Your task to perform on an android device: Open Reddit.com Image 0: 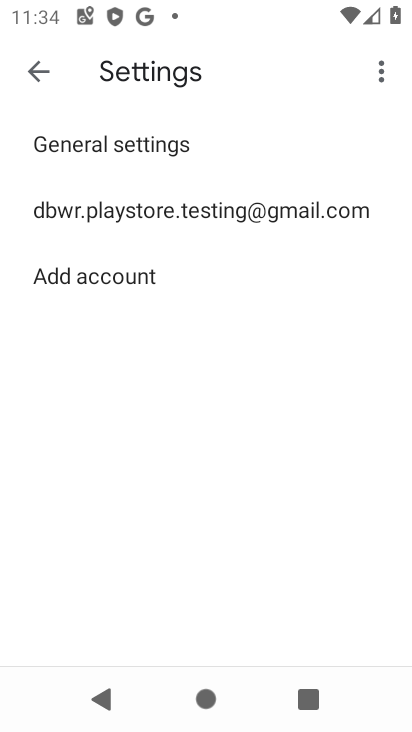
Step 0: press home button
Your task to perform on an android device: Open Reddit.com Image 1: 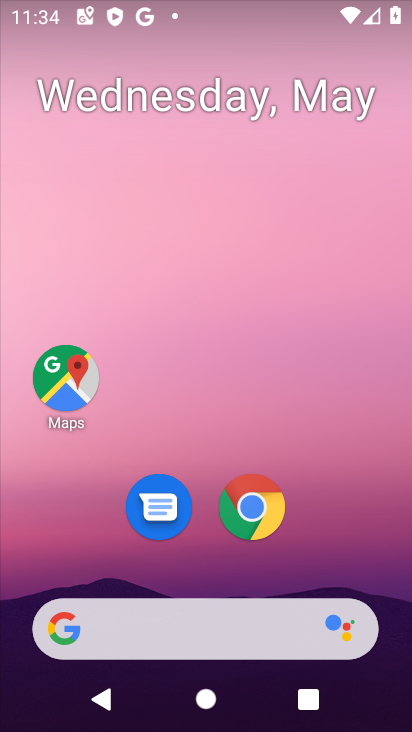
Step 1: click (260, 500)
Your task to perform on an android device: Open Reddit.com Image 2: 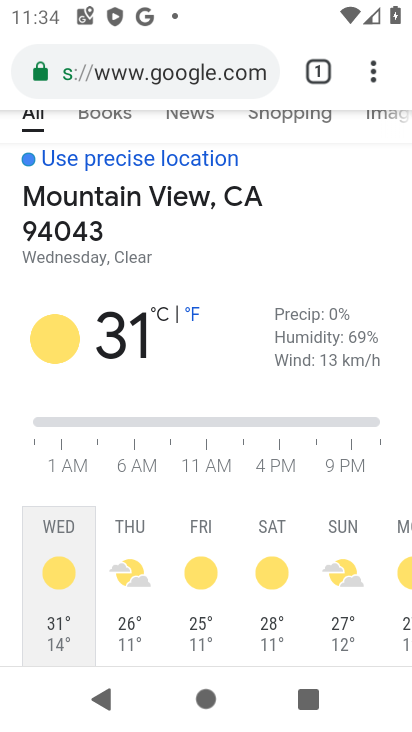
Step 2: click (215, 47)
Your task to perform on an android device: Open Reddit.com Image 3: 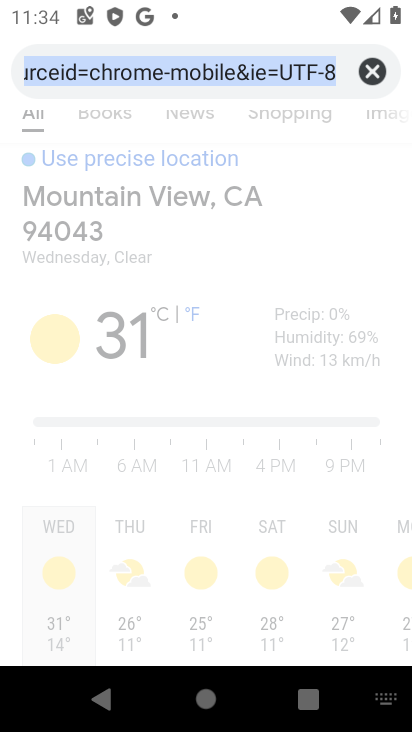
Step 3: click (360, 74)
Your task to perform on an android device: Open Reddit.com Image 4: 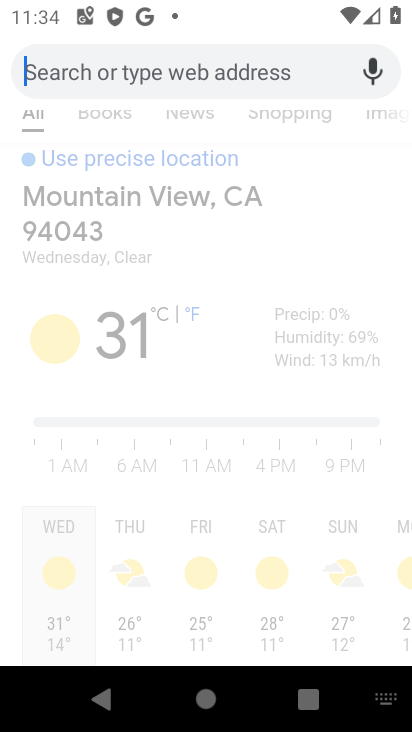
Step 4: type " Reddit.com"
Your task to perform on an android device: Open Reddit.com Image 5: 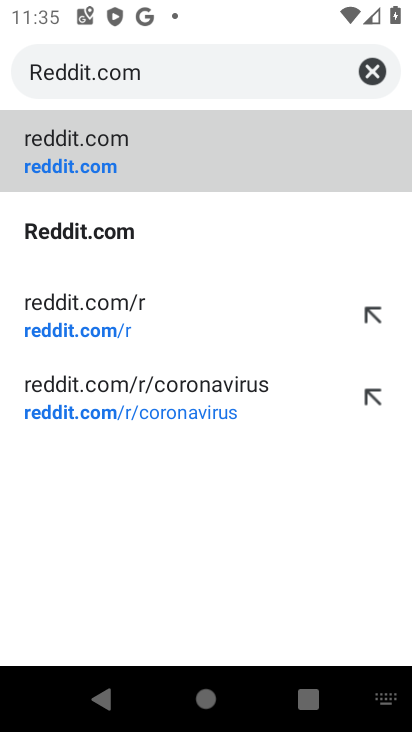
Step 5: click (253, 113)
Your task to perform on an android device: Open Reddit.com Image 6: 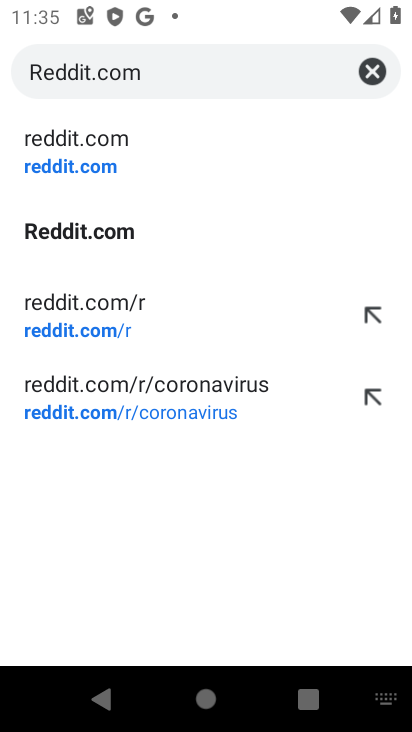
Step 6: click (146, 169)
Your task to perform on an android device: Open Reddit.com Image 7: 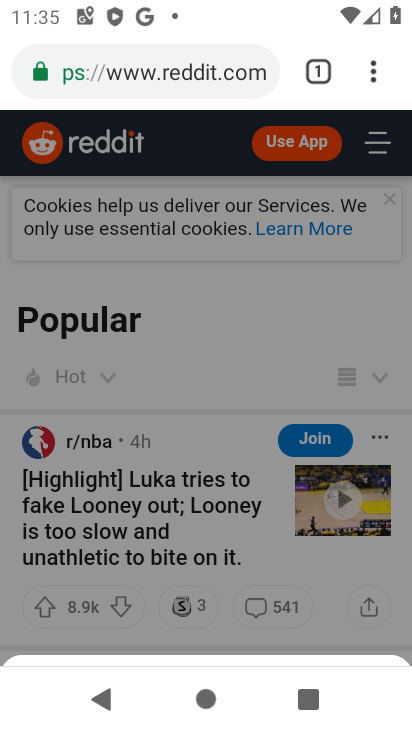
Step 7: task complete